Your task to perform on an android device: Open calendar and show me the third week of next month Image 0: 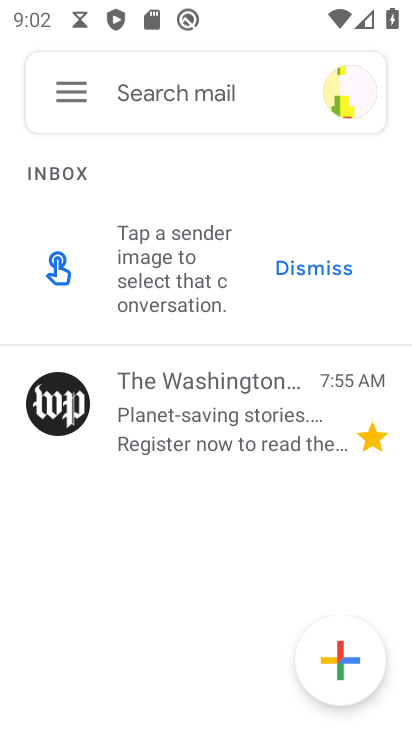
Step 0: press home button
Your task to perform on an android device: Open calendar and show me the third week of next month Image 1: 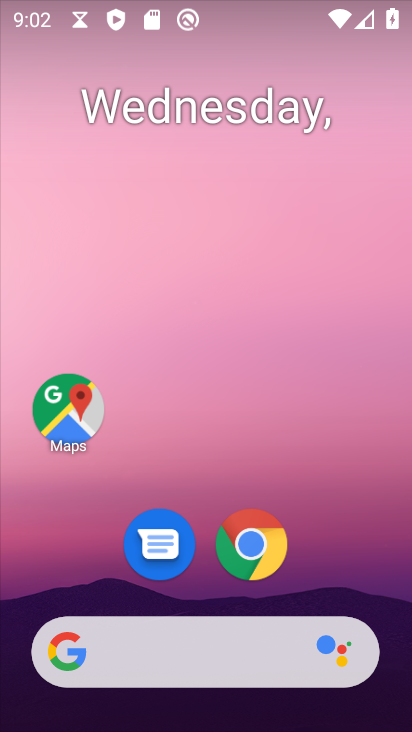
Step 1: drag from (154, 645) to (321, 151)
Your task to perform on an android device: Open calendar and show me the third week of next month Image 2: 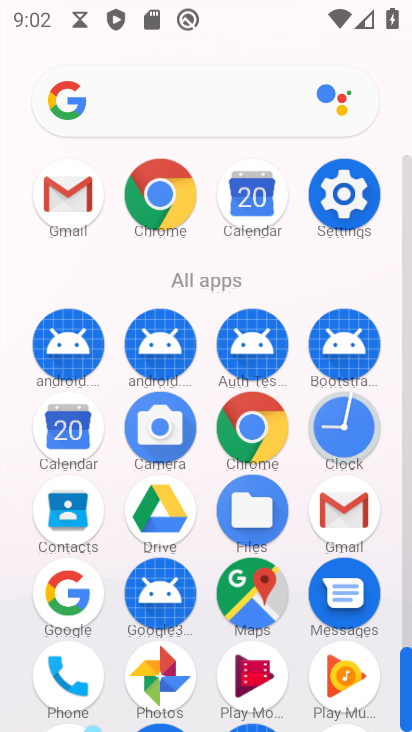
Step 2: click (72, 453)
Your task to perform on an android device: Open calendar and show me the third week of next month Image 3: 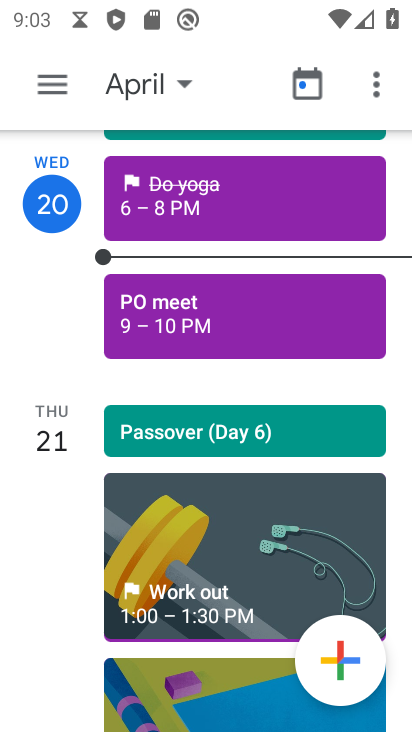
Step 3: click (148, 86)
Your task to perform on an android device: Open calendar and show me the third week of next month Image 4: 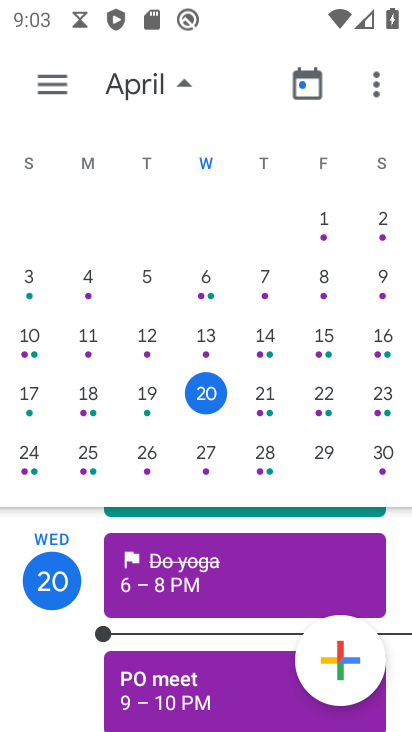
Step 4: drag from (312, 419) to (18, 426)
Your task to perform on an android device: Open calendar and show me the third week of next month Image 5: 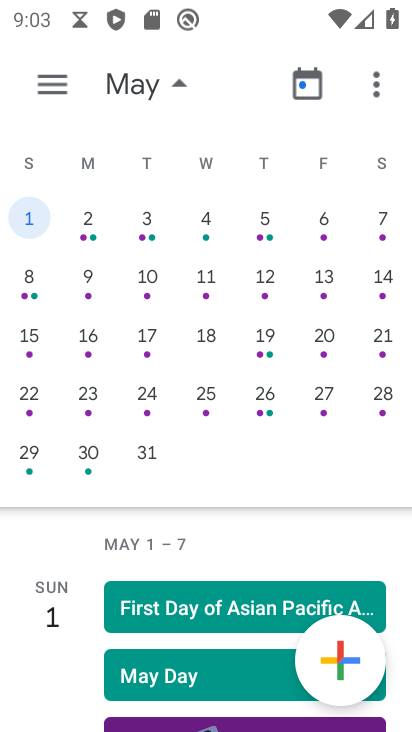
Step 5: click (32, 337)
Your task to perform on an android device: Open calendar and show me the third week of next month Image 6: 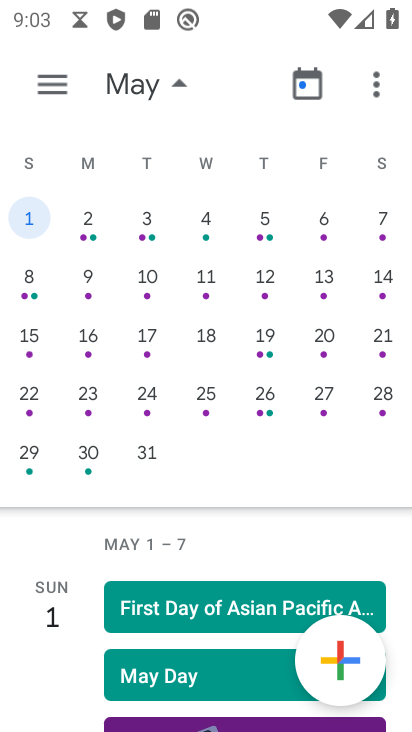
Step 6: click (39, 338)
Your task to perform on an android device: Open calendar and show me the third week of next month Image 7: 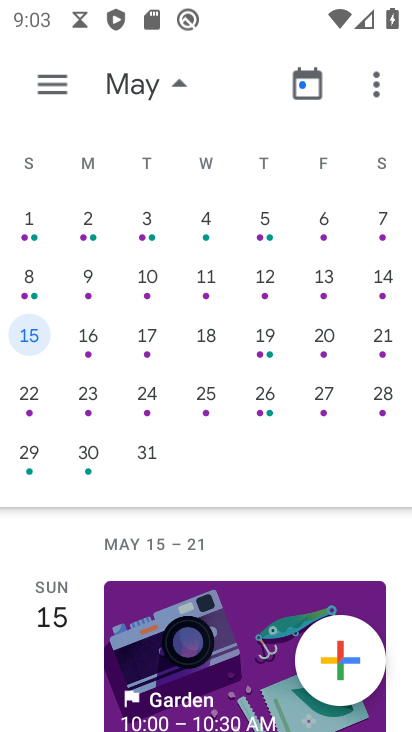
Step 7: click (55, 78)
Your task to perform on an android device: Open calendar and show me the third week of next month Image 8: 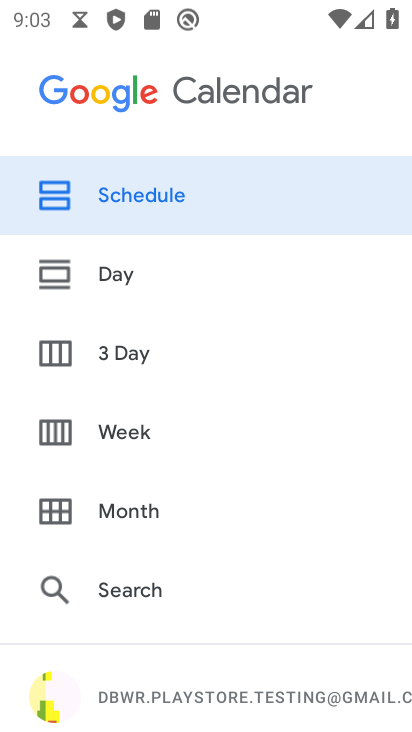
Step 8: click (109, 433)
Your task to perform on an android device: Open calendar and show me the third week of next month Image 9: 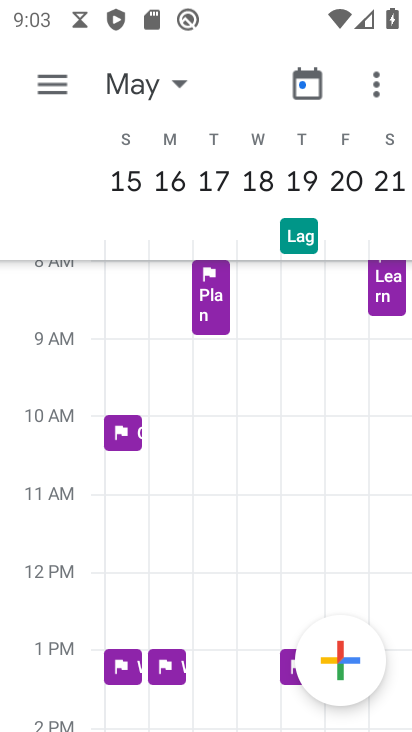
Step 9: task complete